Your task to perform on an android device: Open the Play Movies app and select the watchlist tab. Image 0: 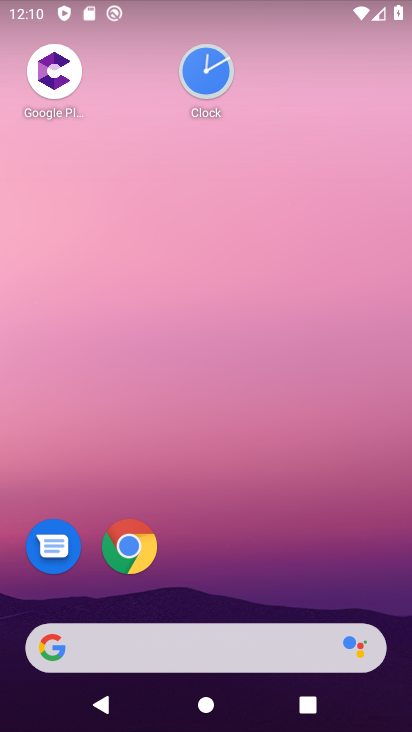
Step 0: drag from (360, 643) to (395, 101)
Your task to perform on an android device: Open the Play Movies app and select the watchlist tab. Image 1: 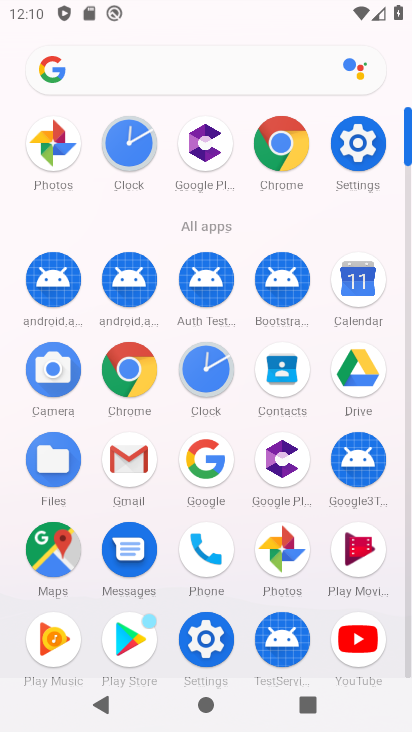
Step 1: drag from (229, 509) to (287, 236)
Your task to perform on an android device: Open the Play Movies app and select the watchlist tab. Image 2: 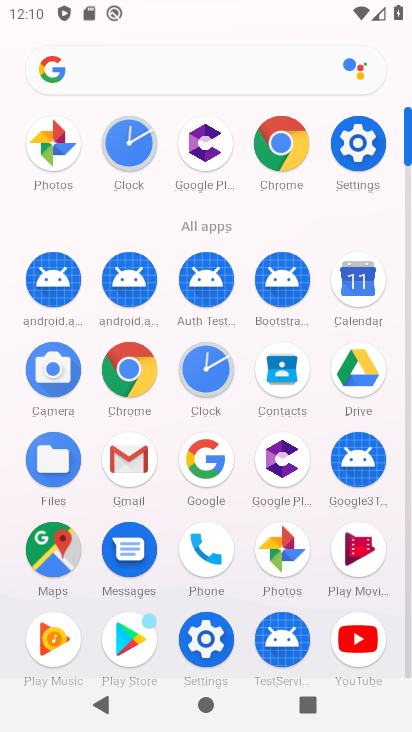
Step 2: click (354, 557)
Your task to perform on an android device: Open the Play Movies app and select the watchlist tab. Image 3: 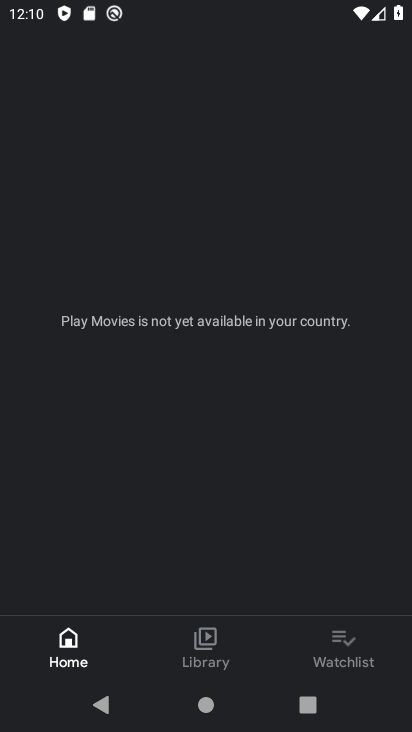
Step 3: task complete